Your task to perform on an android device: open wifi settings Image 0: 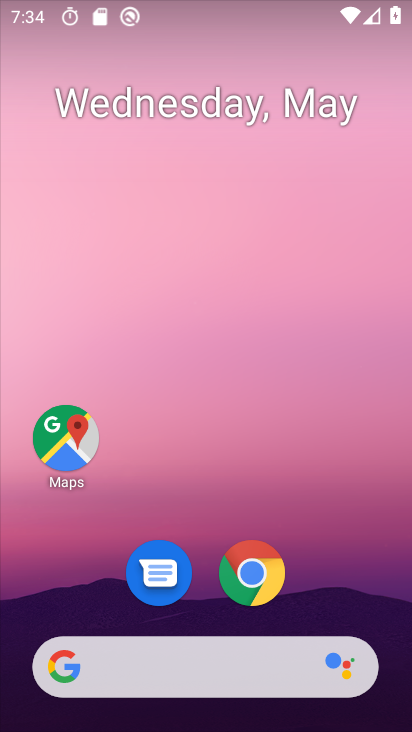
Step 0: drag from (335, 600) to (342, 0)
Your task to perform on an android device: open wifi settings Image 1: 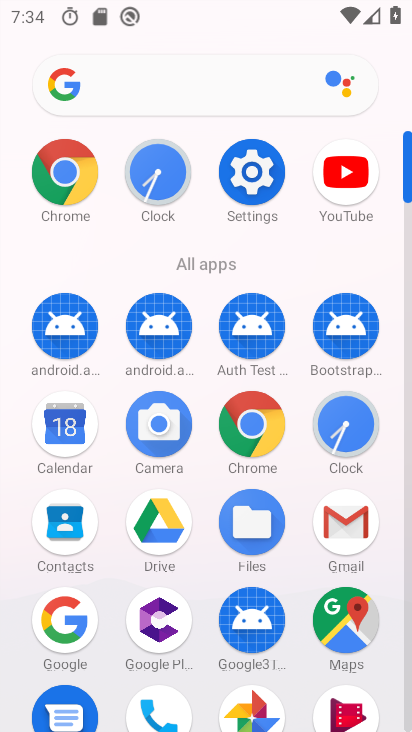
Step 1: click (254, 178)
Your task to perform on an android device: open wifi settings Image 2: 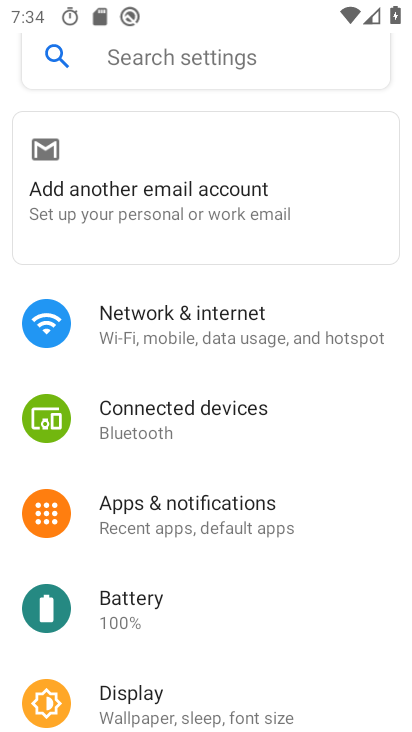
Step 2: click (257, 326)
Your task to perform on an android device: open wifi settings Image 3: 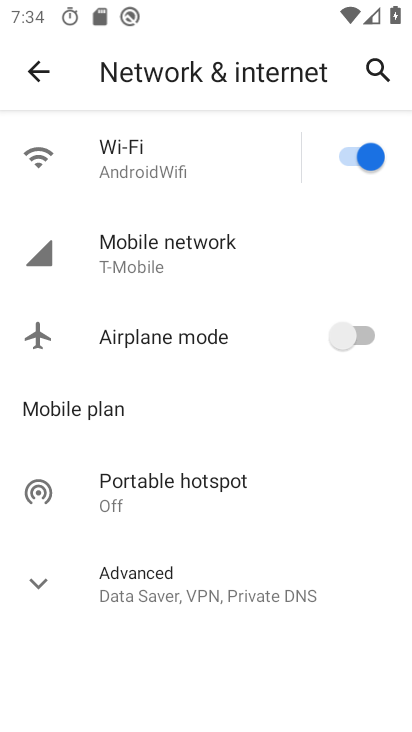
Step 3: click (70, 161)
Your task to perform on an android device: open wifi settings Image 4: 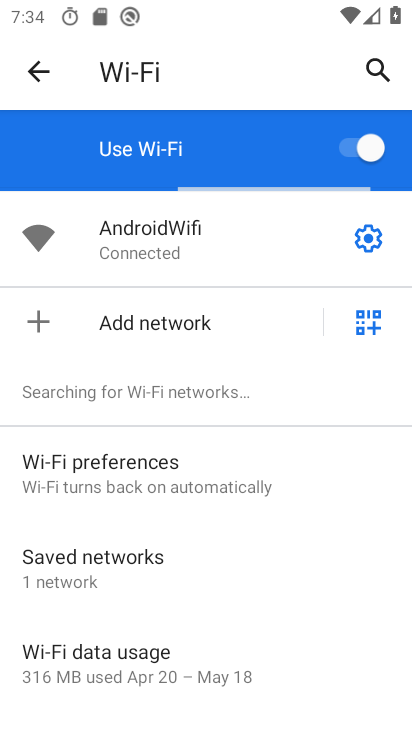
Step 4: task complete